Your task to perform on an android device: Open Chrome and go to the settings page Image 0: 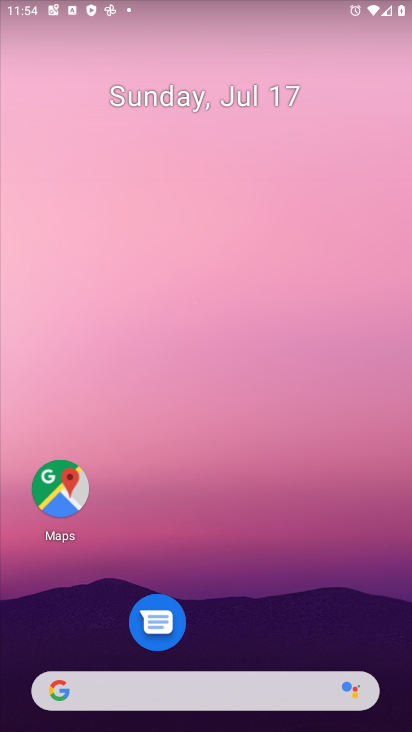
Step 0: drag from (194, 726) to (190, 211)
Your task to perform on an android device: Open Chrome and go to the settings page Image 1: 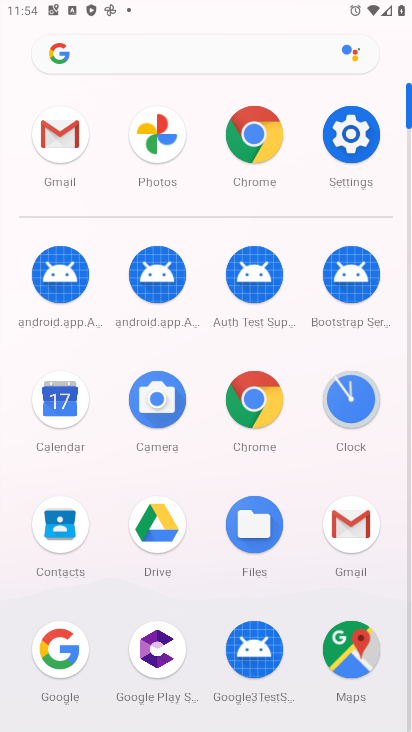
Step 1: click (251, 135)
Your task to perform on an android device: Open Chrome and go to the settings page Image 2: 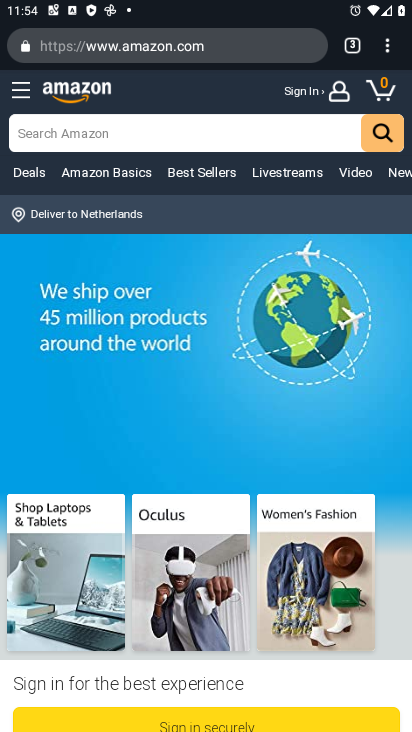
Step 2: click (390, 42)
Your task to perform on an android device: Open Chrome and go to the settings page Image 3: 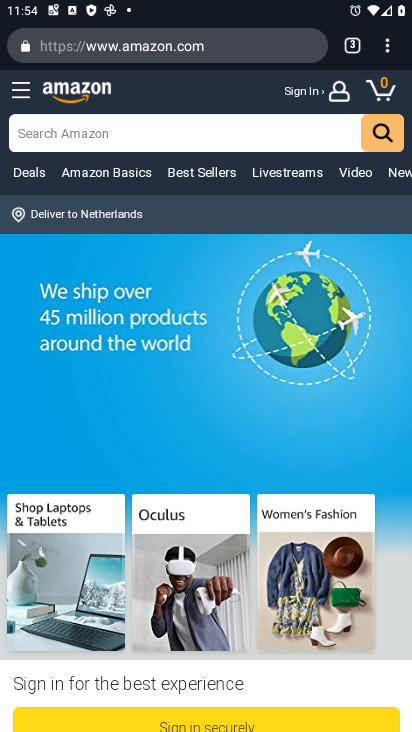
Step 3: click (390, 42)
Your task to perform on an android device: Open Chrome and go to the settings page Image 4: 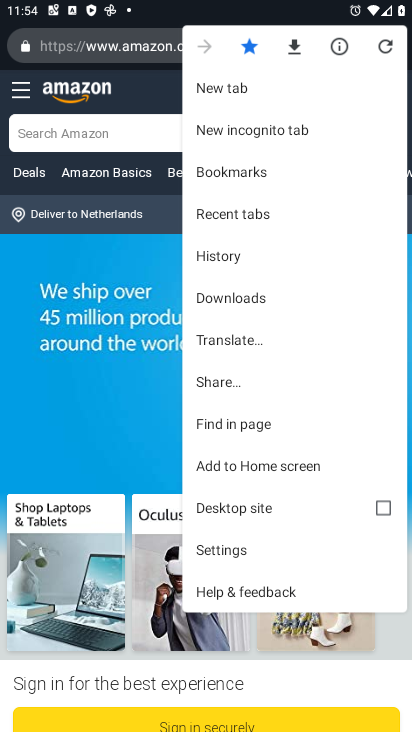
Step 4: click (242, 558)
Your task to perform on an android device: Open Chrome and go to the settings page Image 5: 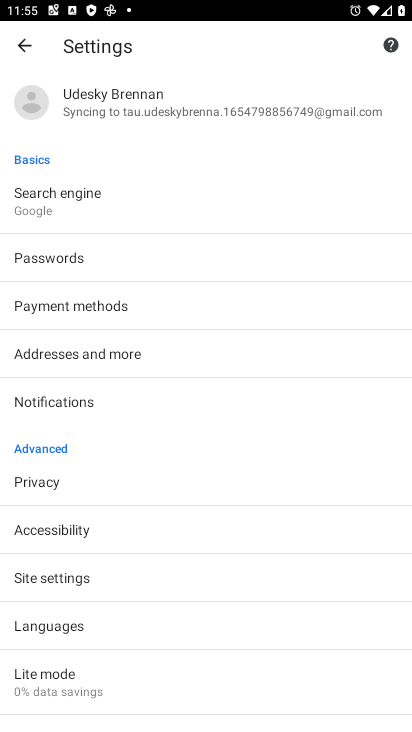
Step 5: task complete